Your task to perform on an android device: Search for Mexican restaurants on Maps Image 0: 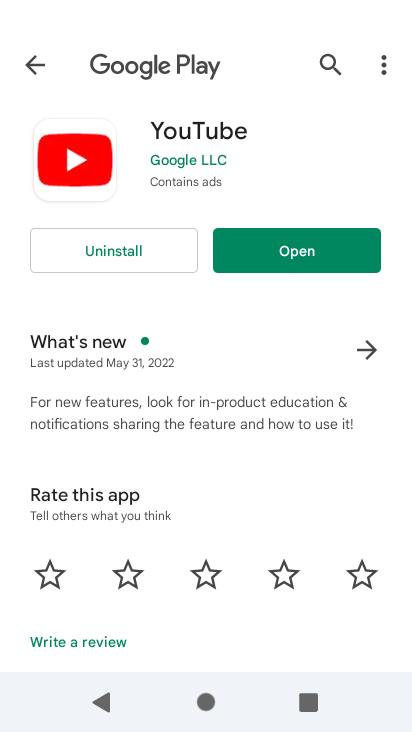
Step 0: press home button
Your task to perform on an android device: Search for Mexican restaurants on Maps Image 1: 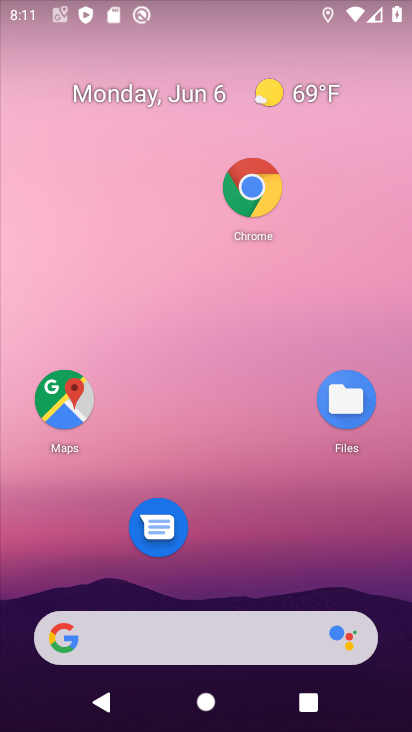
Step 1: click (70, 408)
Your task to perform on an android device: Search for Mexican restaurants on Maps Image 2: 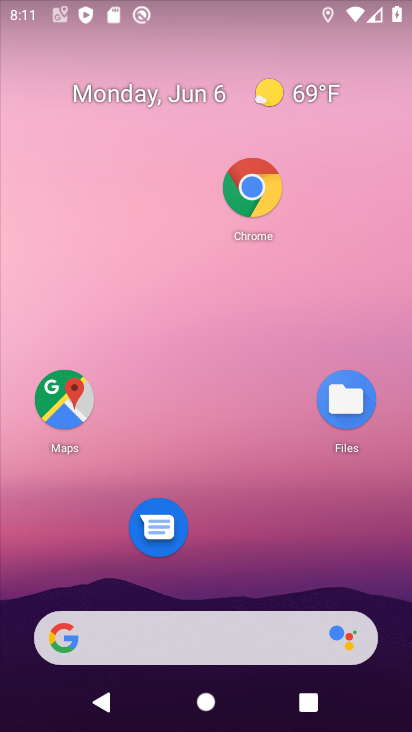
Step 2: click (70, 408)
Your task to perform on an android device: Search for Mexican restaurants on Maps Image 3: 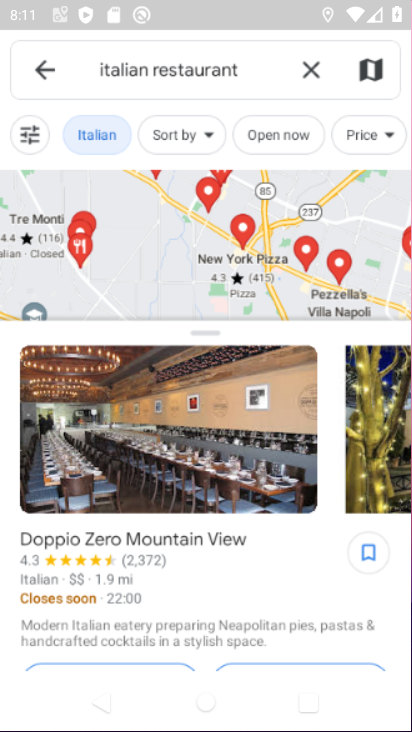
Step 3: click (70, 408)
Your task to perform on an android device: Search for Mexican restaurants on Maps Image 4: 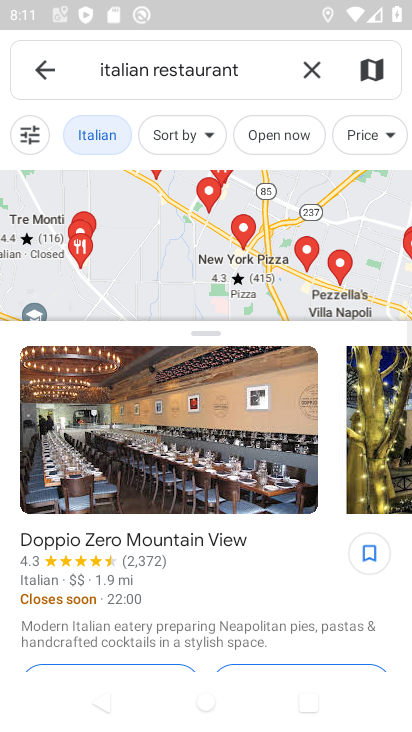
Step 4: click (308, 69)
Your task to perform on an android device: Search for Mexican restaurants on Maps Image 5: 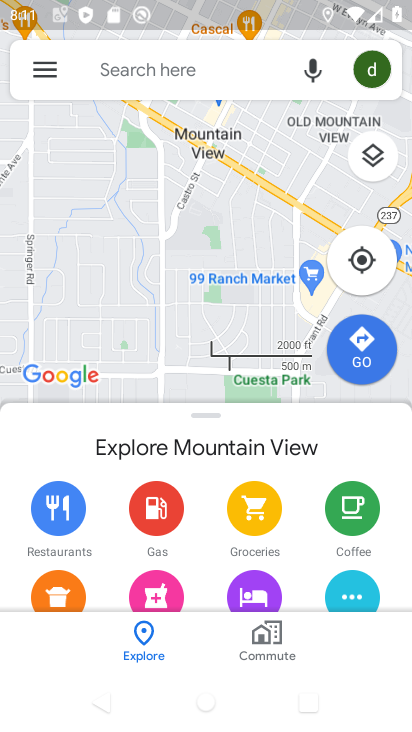
Step 5: click (180, 71)
Your task to perform on an android device: Search for Mexican restaurants on Maps Image 6: 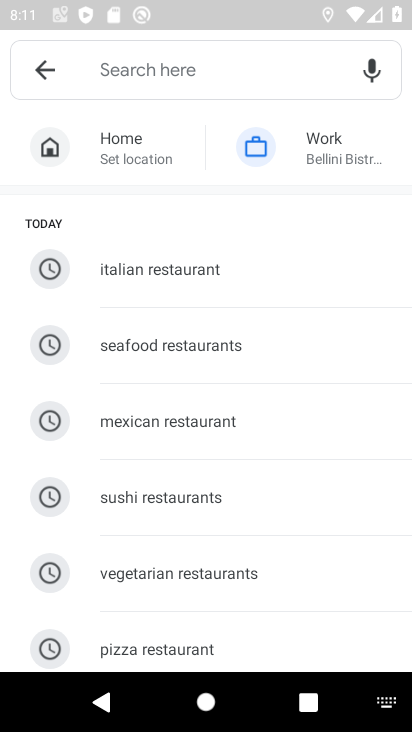
Step 6: click (187, 429)
Your task to perform on an android device: Search for Mexican restaurants on Maps Image 7: 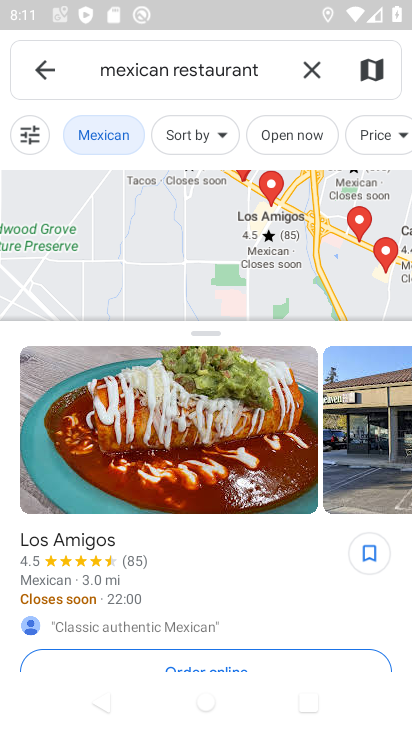
Step 7: task complete